Your task to perform on an android device: Open Youtube and go to "Your channel" Image 0: 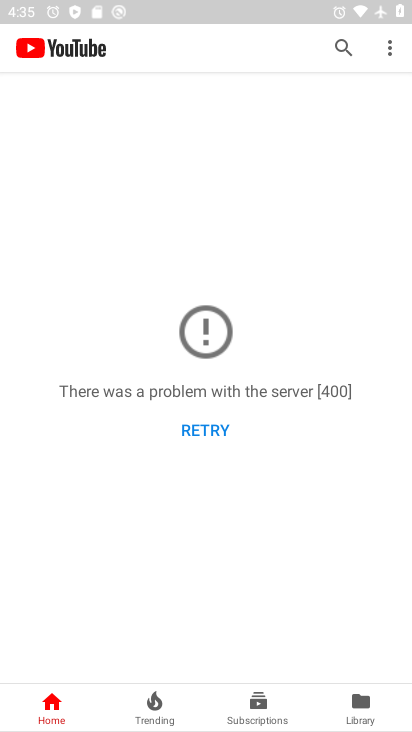
Step 0: click (46, 709)
Your task to perform on an android device: Open Youtube and go to "Your channel" Image 1: 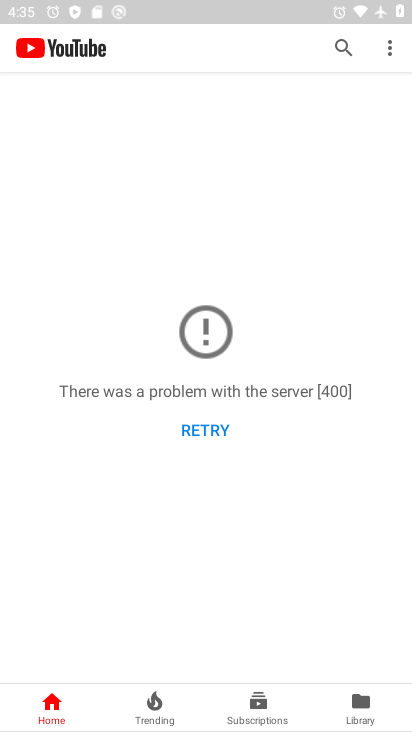
Step 1: click (355, 701)
Your task to perform on an android device: Open Youtube and go to "Your channel" Image 2: 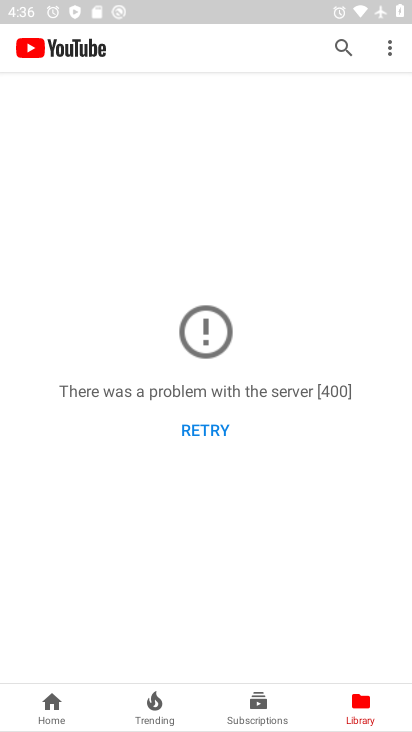
Step 2: click (39, 715)
Your task to perform on an android device: Open Youtube and go to "Your channel" Image 3: 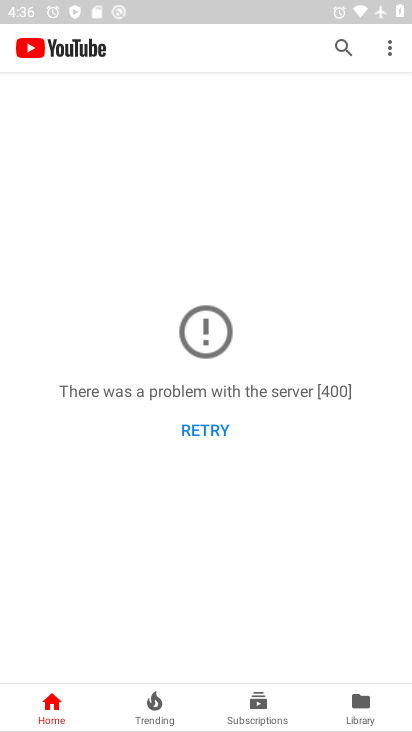
Step 3: task complete